Your task to perform on an android device: Open eBay Image 0: 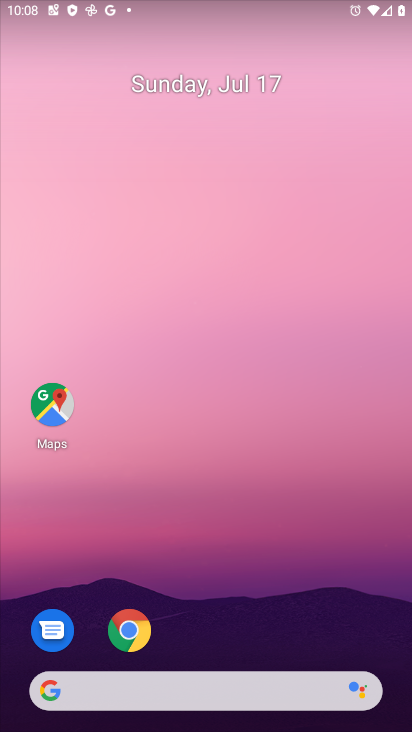
Step 0: drag from (186, 568) to (214, 85)
Your task to perform on an android device: Open eBay Image 1: 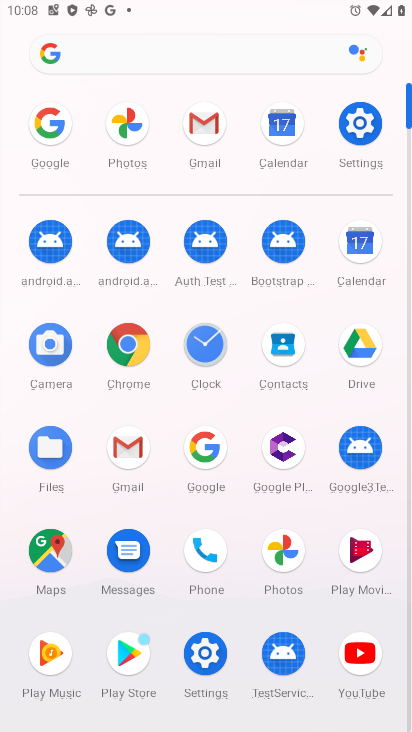
Step 1: click (353, 140)
Your task to perform on an android device: Open eBay Image 2: 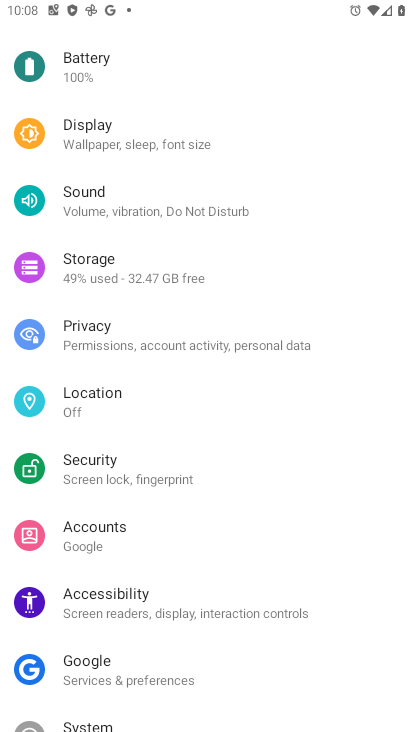
Step 2: press back button
Your task to perform on an android device: Open eBay Image 3: 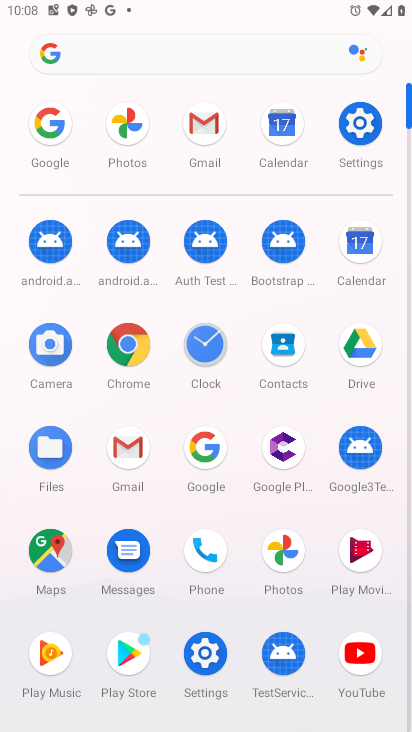
Step 3: click (138, 365)
Your task to perform on an android device: Open eBay Image 4: 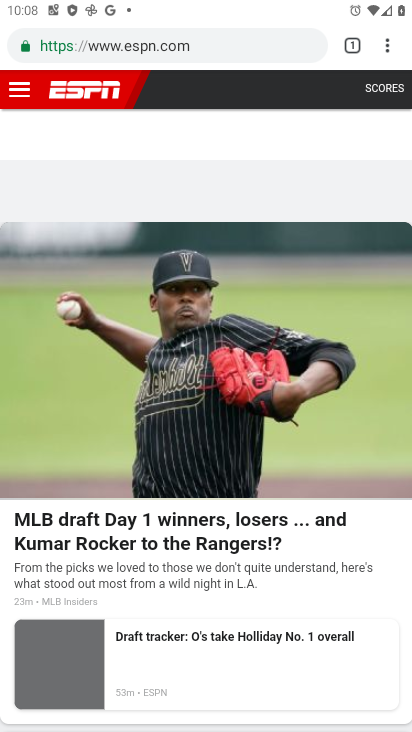
Step 4: click (154, 39)
Your task to perform on an android device: Open eBay Image 5: 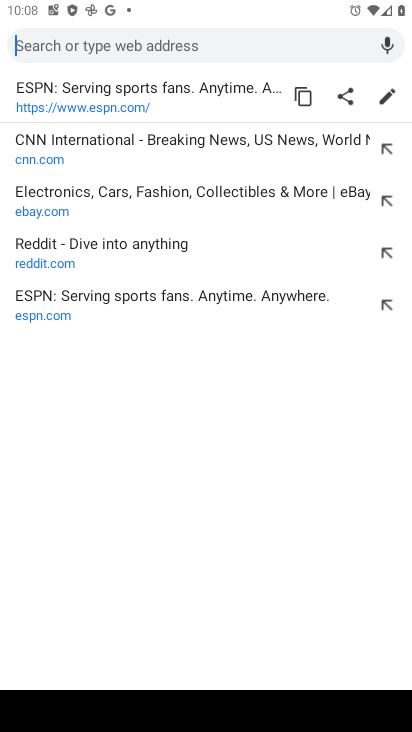
Step 5: click (75, 198)
Your task to perform on an android device: Open eBay Image 6: 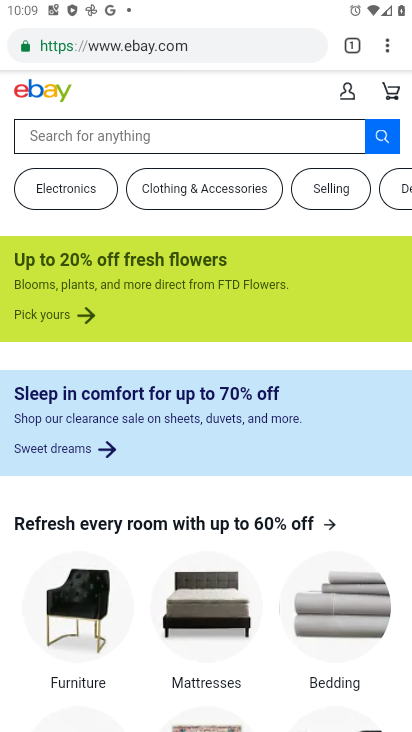
Step 6: task complete